Your task to perform on an android device: Open Youtube and go to "Your channel" Image 0: 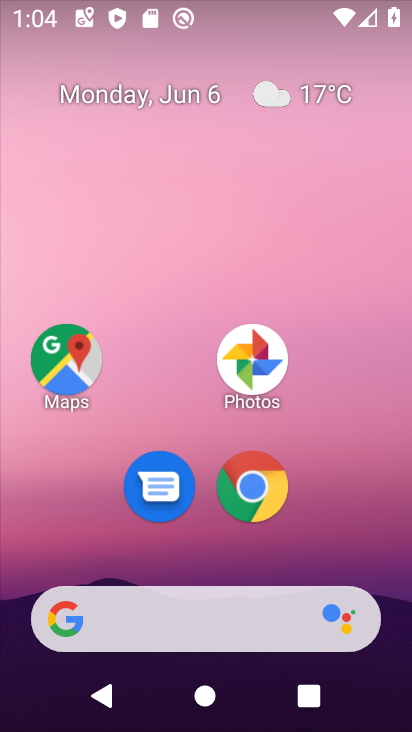
Step 0: drag from (133, 585) to (282, 6)
Your task to perform on an android device: Open Youtube and go to "Your channel" Image 1: 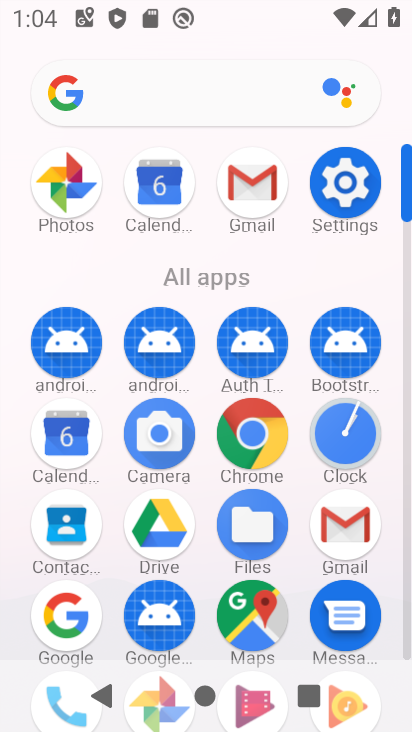
Step 1: drag from (169, 603) to (298, 173)
Your task to perform on an android device: Open Youtube and go to "Your channel" Image 2: 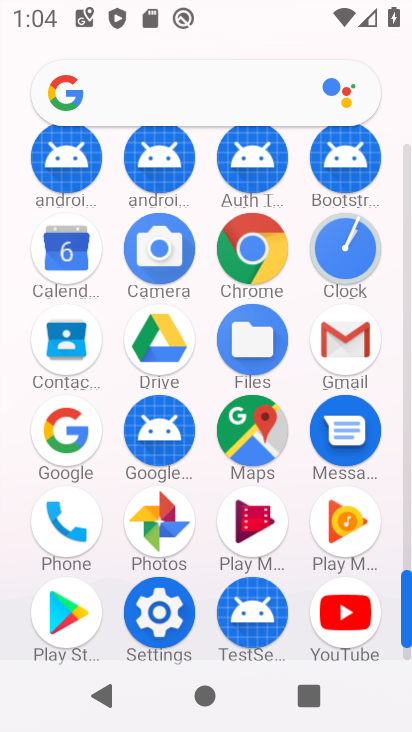
Step 2: click (354, 608)
Your task to perform on an android device: Open Youtube and go to "Your channel" Image 3: 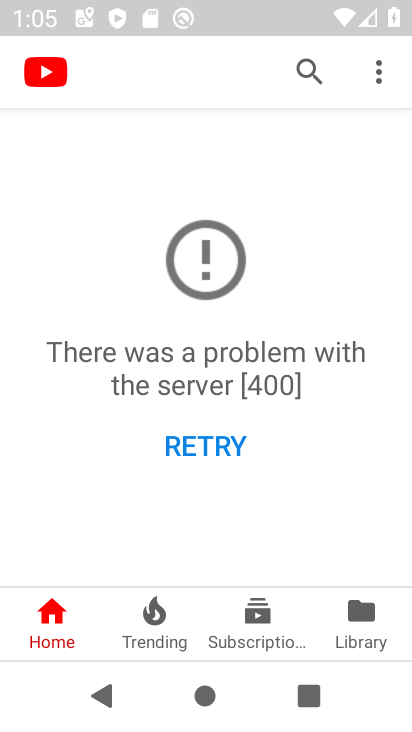
Step 3: click (361, 618)
Your task to perform on an android device: Open Youtube and go to "Your channel" Image 4: 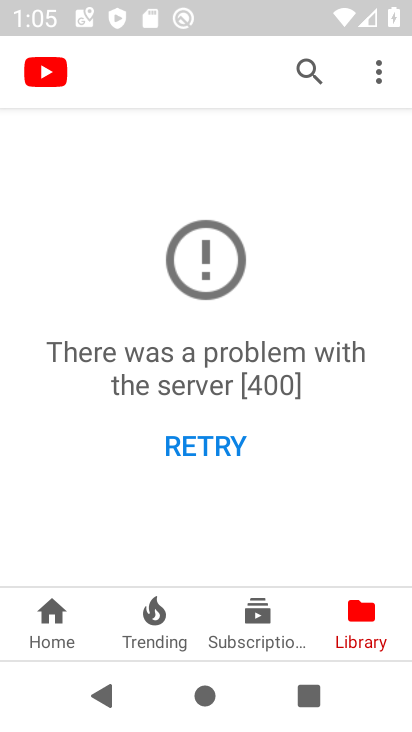
Step 4: task complete